Your task to perform on an android device: turn pop-ups off in chrome Image 0: 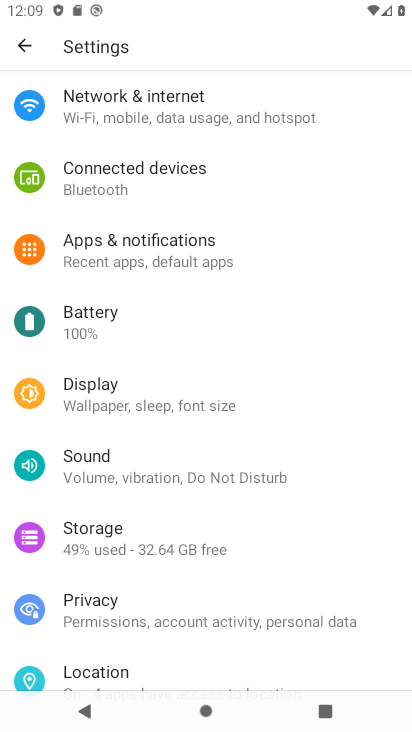
Step 0: press home button
Your task to perform on an android device: turn pop-ups off in chrome Image 1: 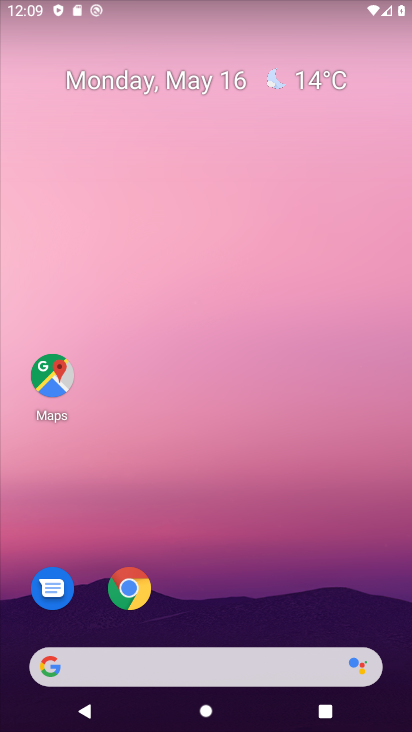
Step 1: click (130, 585)
Your task to perform on an android device: turn pop-ups off in chrome Image 2: 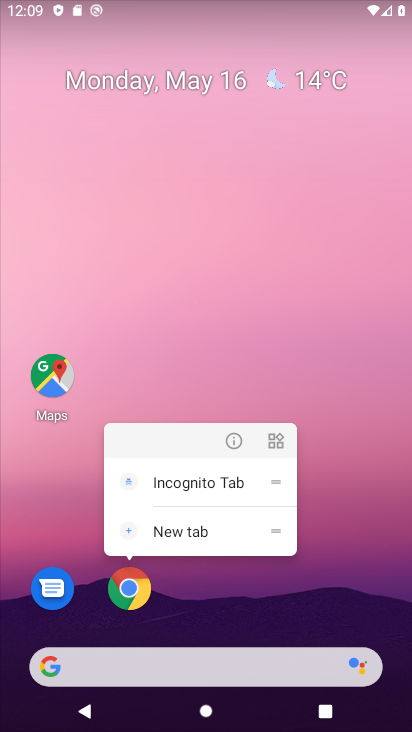
Step 2: click (142, 590)
Your task to perform on an android device: turn pop-ups off in chrome Image 3: 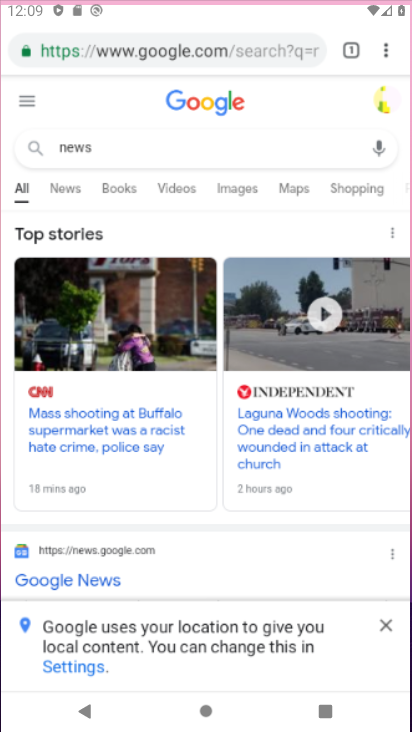
Step 3: click (129, 588)
Your task to perform on an android device: turn pop-ups off in chrome Image 4: 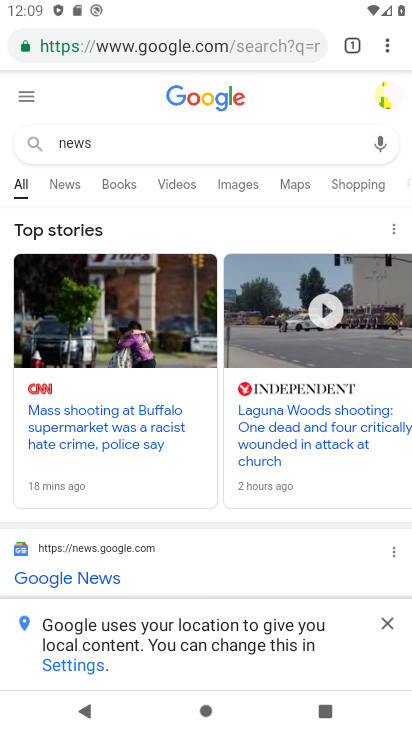
Step 4: click (382, 44)
Your task to perform on an android device: turn pop-ups off in chrome Image 5: 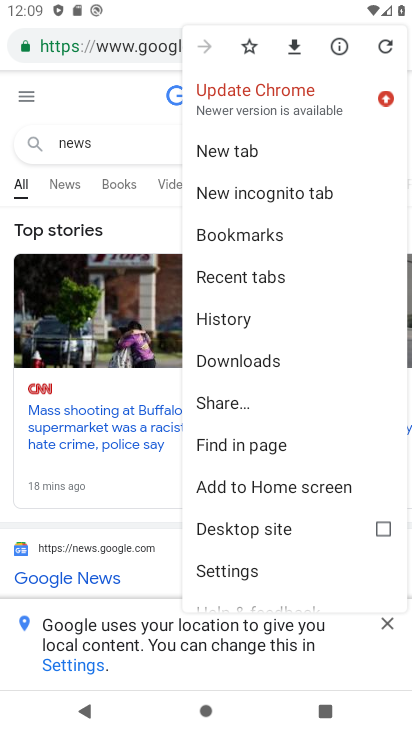
Step 5: click (245, 570)
Your task to perform on an android device: turn pop-ups off in chrome Image 6: 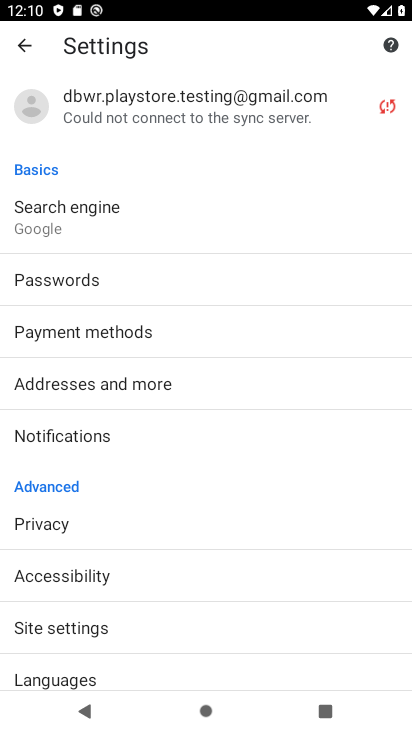
Step 6: click (79, 631)
Your task to perform on an android device: turn pop-ups off in chrome Image 7: 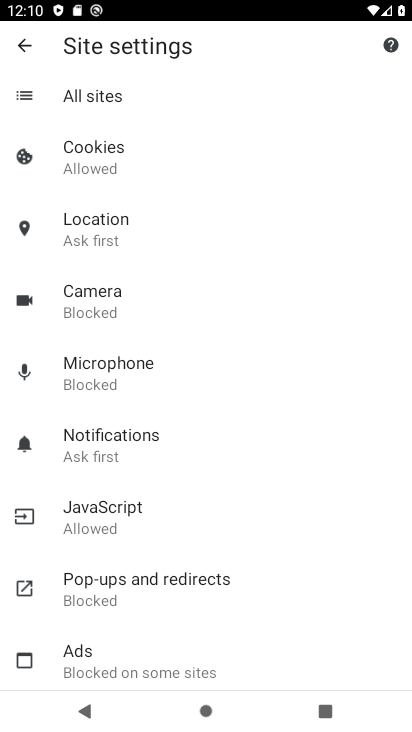
Step 7: click (159, 596)
Your task to perform on an android device: turn pop-ups off in chrome Image 8: 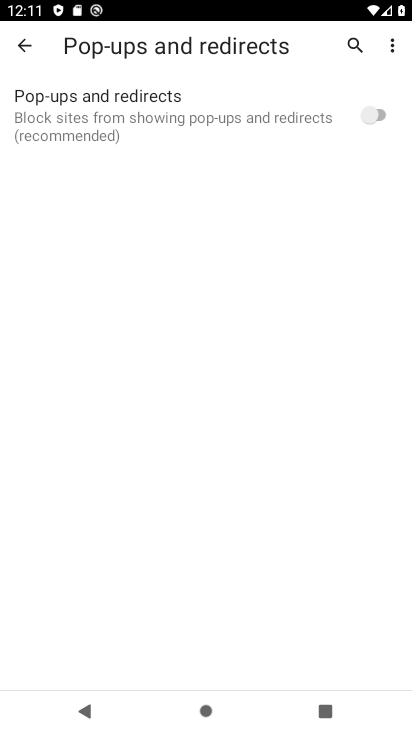
Step 8: task complete